Your task to perform on an android device: Search for "jbl charge 4" on target.com, select the first entry, and add it to the cart. Image 0: 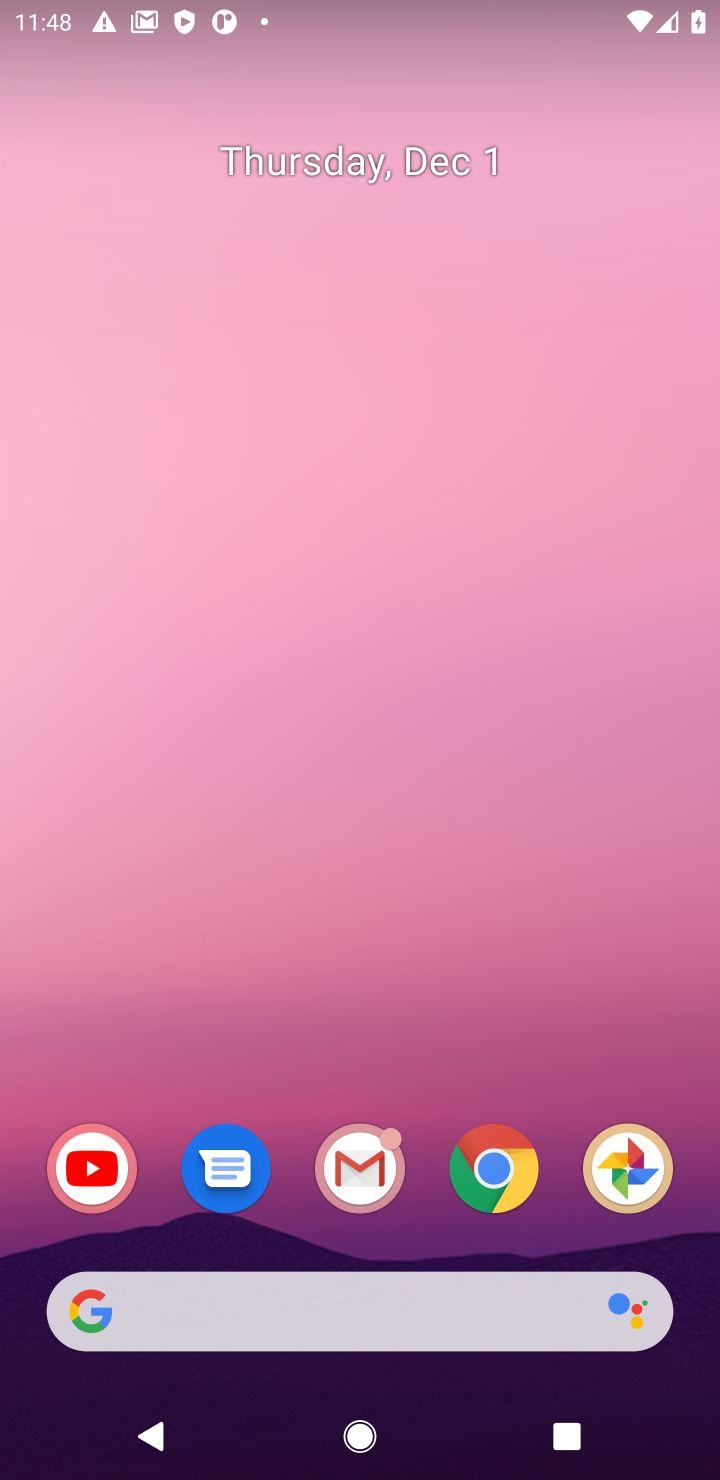
Step 0: click (477, 1182)
Your task to perform on an android device: Search for "jbl charge 4" on target.com, select the first entry, and add it to the cart. Image 1: 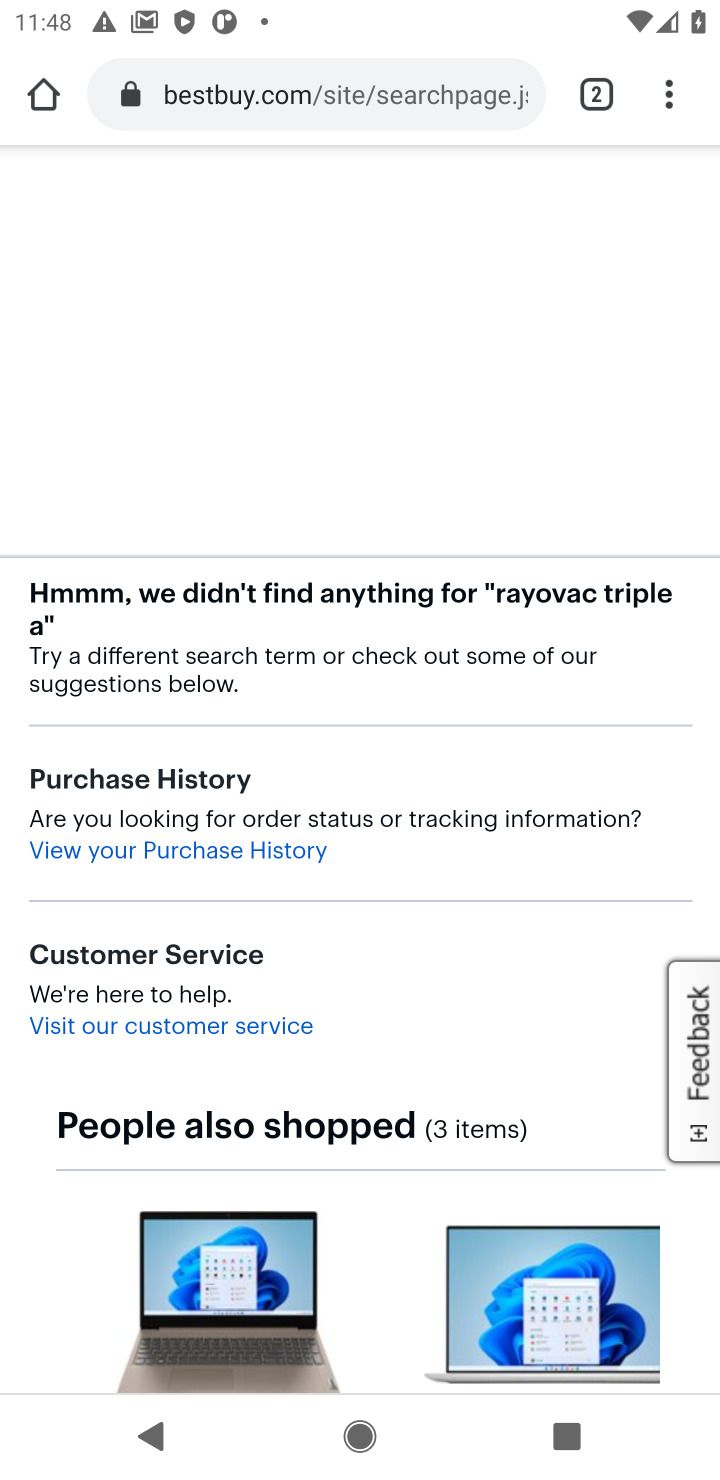
Step 1: click (295, 87)
Your task to perform on an android device: Search for "jbl charge 4" on target.com, select the first entry, and add it to the cart. Image 2: 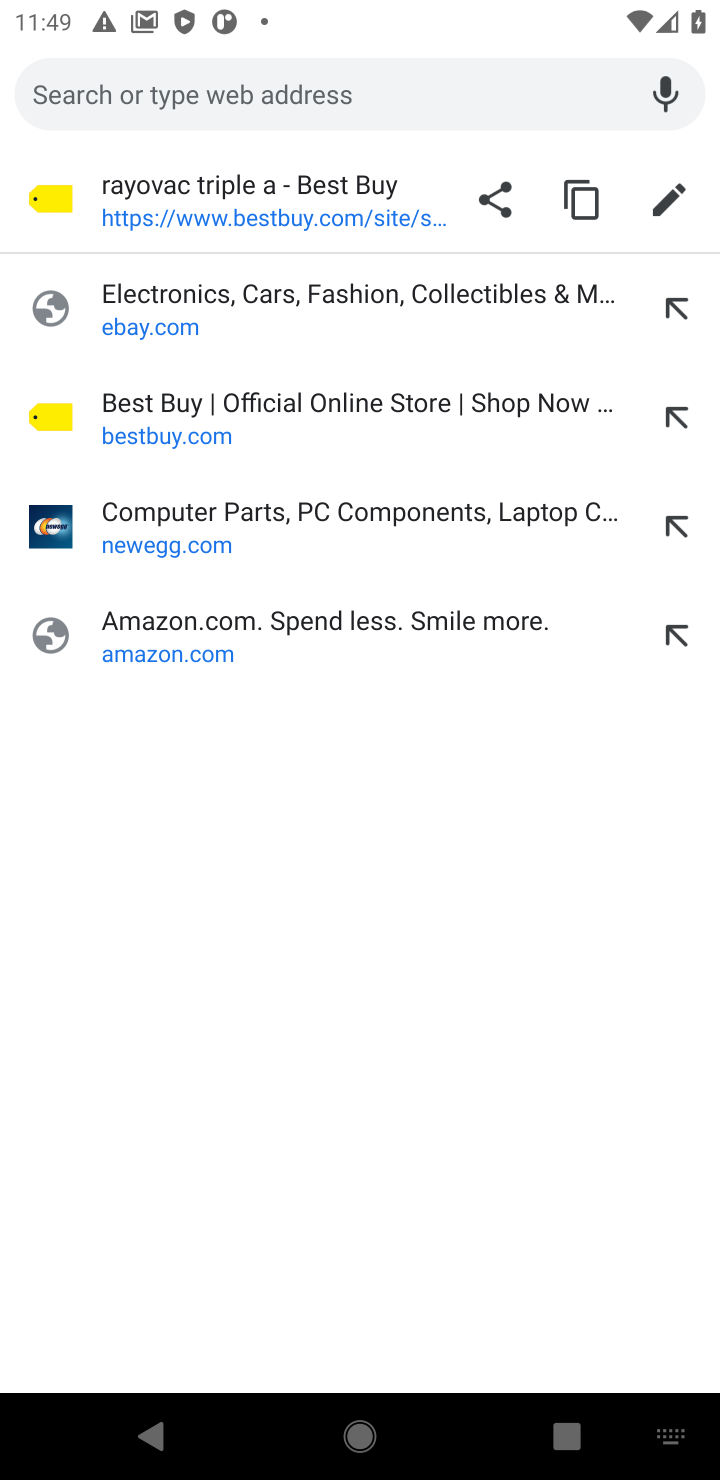
Step 2: type "target.com"
Your task to perform on an android device: Search for "jbl charge 4" on target.com, select the first entry, and add it to the cart. Image 3: 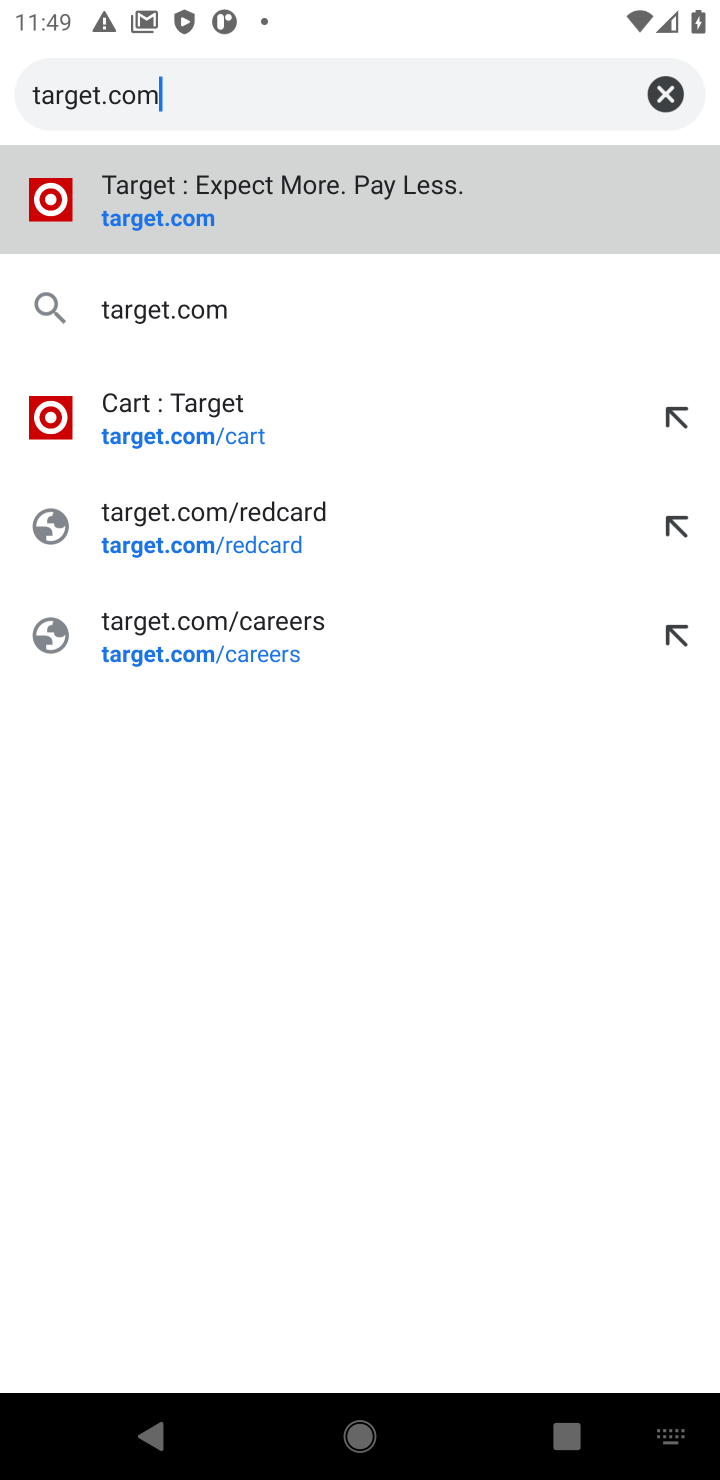
Step 3: click (192, 209)
Your task to perform on an android device: Search for "jbl charge 4" on target.com, select the first entry, and add it to the cart. Image 4: 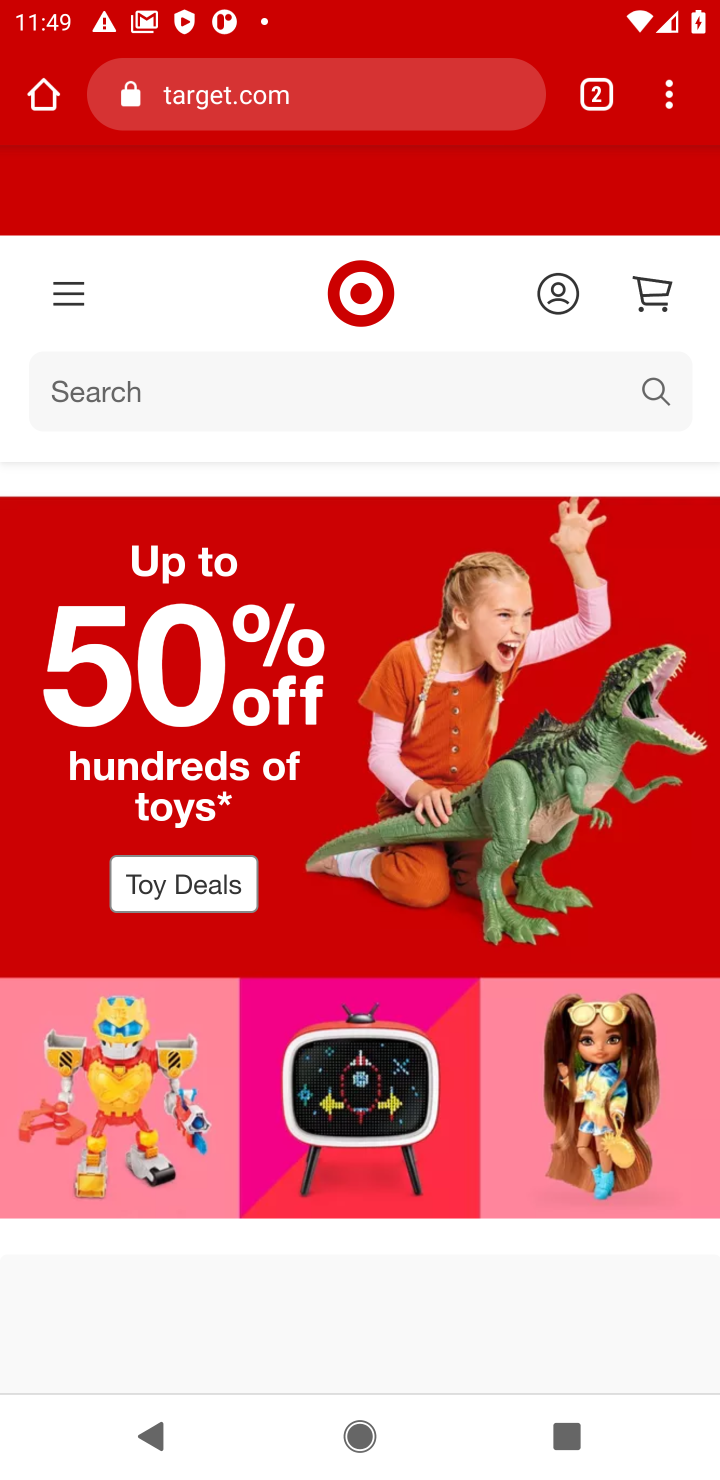
Step 4: click (83, 395)
Your task to perform on an android device: Search for "jbl charge 4" on target.com, select the first entry, and add it to the cart. Image 5: 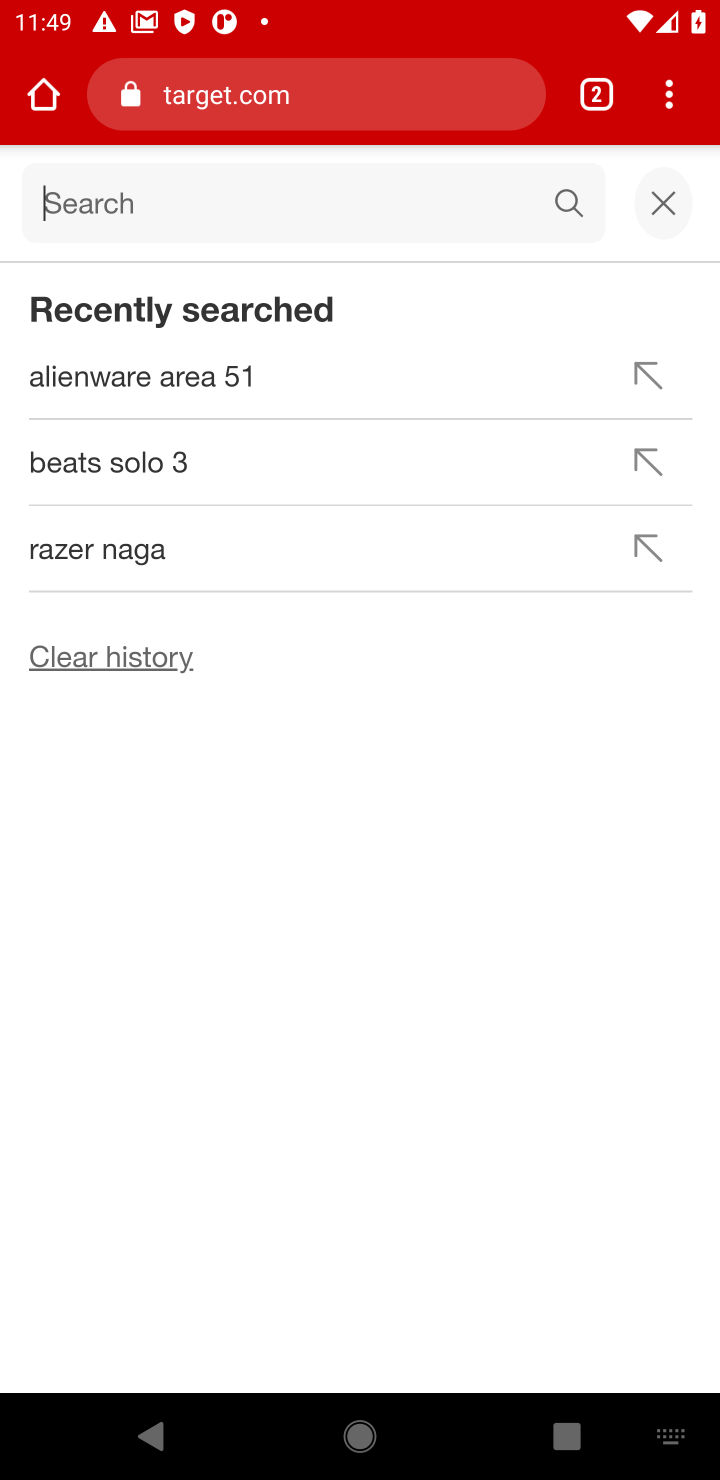
Step 5: type "jbl charge 4"
Your task to perform on an android device: Search for "jbl charge 4" on target.com, select the first entry, and add it to the cart. Image 6: 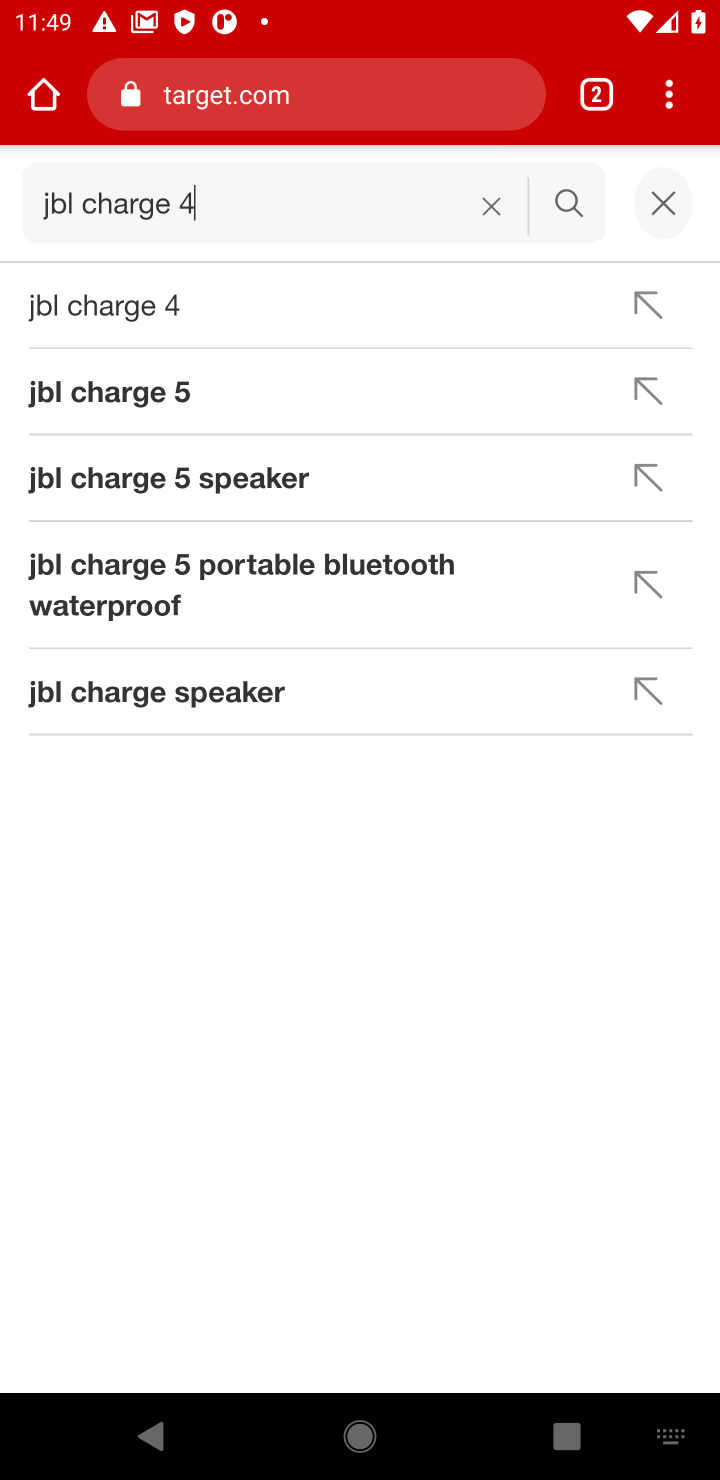
Step 6: click (93, 312)
Your task to perform on an android device: Search for "jbl charge 4" on target.com, select the first entry, and add it to the cart. Image 7: 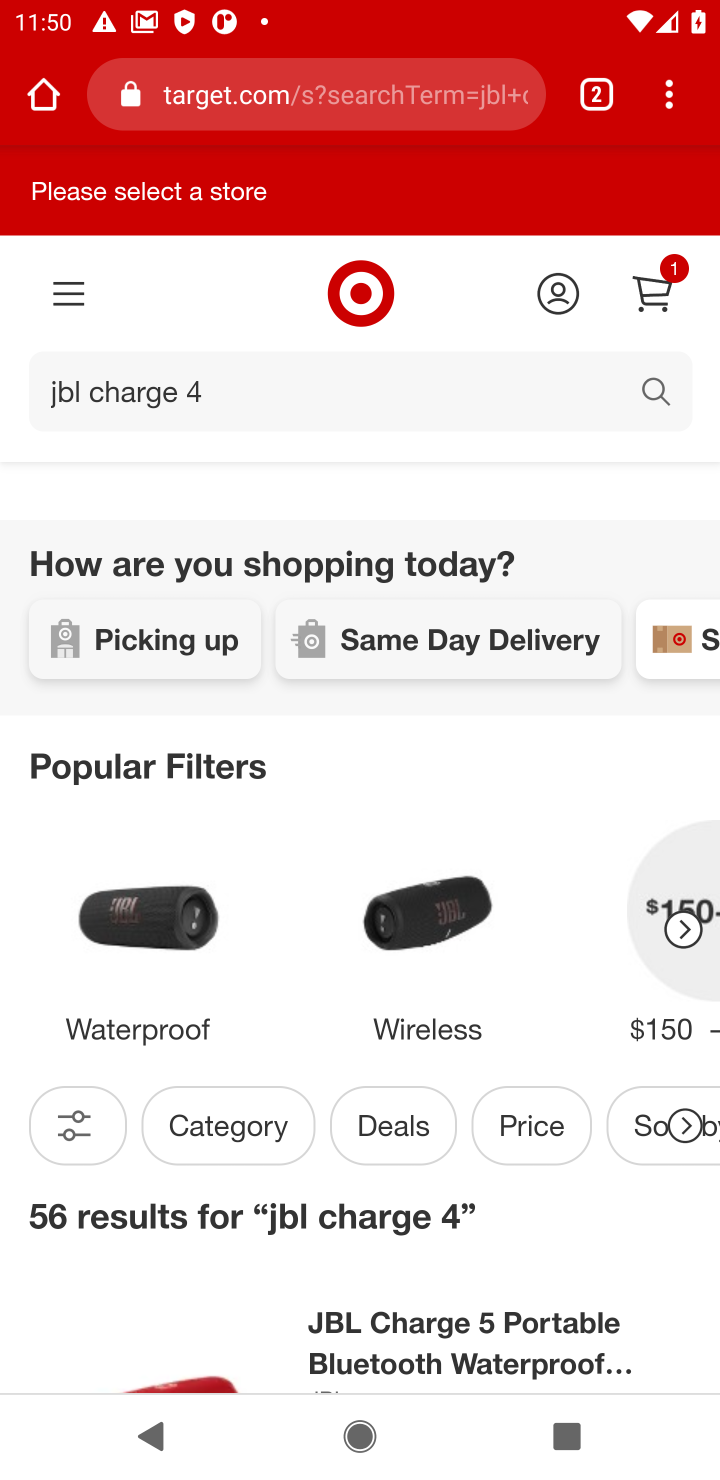
Step 7: task complete